Your task to perform on an android device: turn pop-ups on in chrome Image 0: 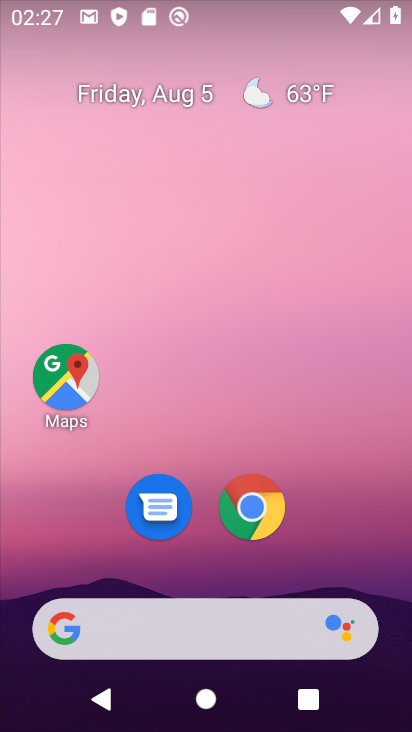
Step 0: click (264, 505)
Your task to perform on an android device: turn pop-ups on in chrome Image 1: 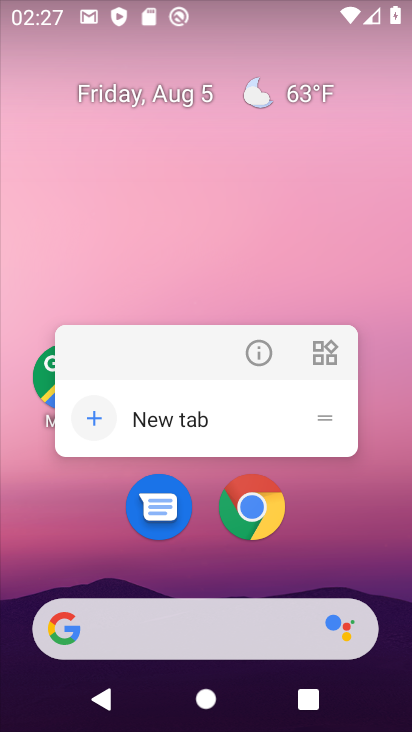
Step 1: click (264, 505)
Your task to perform on an android device: turn pop-ups on in chrome Image 2: 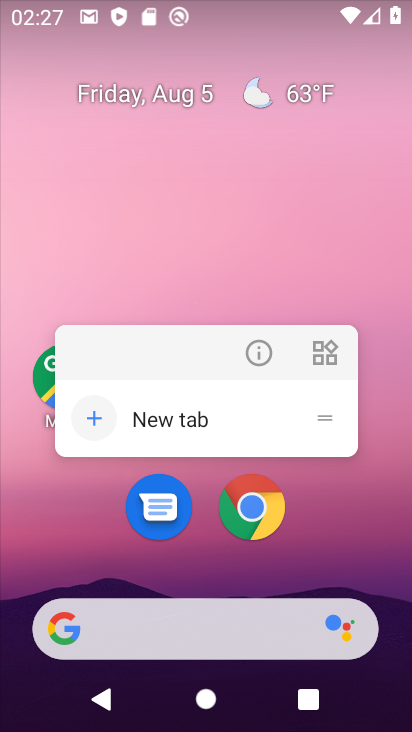
Step 2: click (267, 507)
Your task to perform on an android device: turn pop-ups on in chrome Image 3: 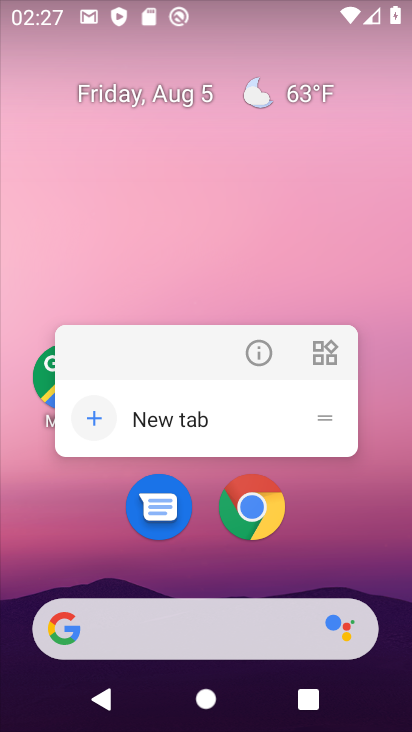
Step 3: click (253, 517)
Your task to perform on an android device: turn pop-ups on in chrome Image 4: 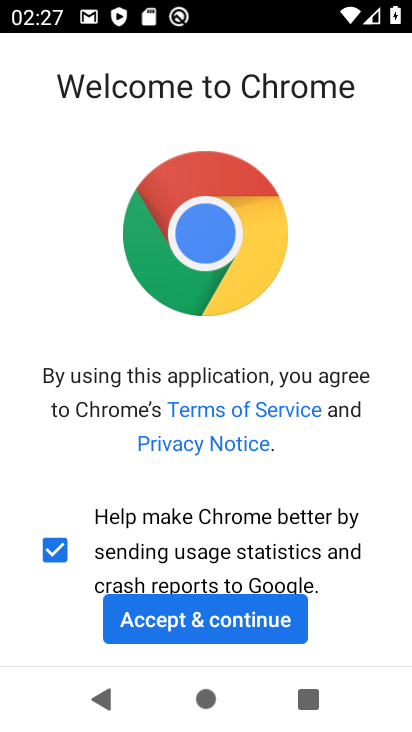
Step 4: click (193, 618)
Your task to perform on an android device: turn pop-ups on in chrome Image 5: 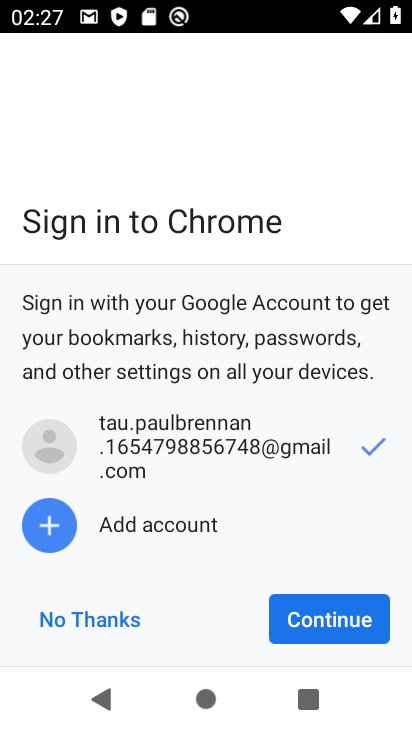
Step 5: click (355, 623)
Your task to perform on an android device: turn pop-ups on in chrome Image 6: 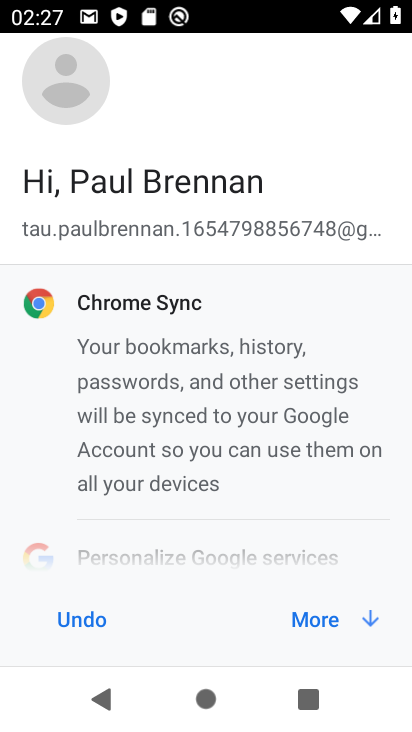
Step 6: click (322, 627)
Your task to perform on an android device: turn pop-ups on in chrome Image 7: 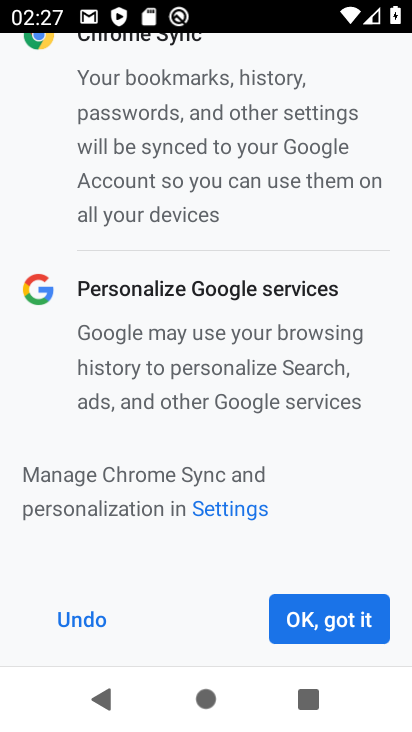
Step 7: click (323, 625)
Your task to perform on an android device: turn pop-ups on in chrome Image 8: 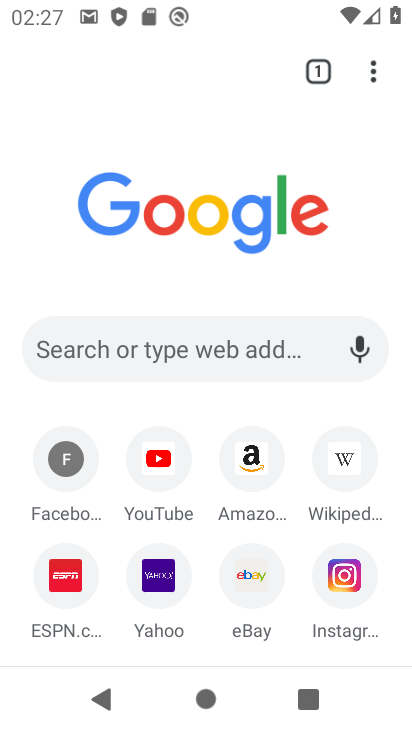
Step 8: click (373, 68)
Your task to perform on an android device: turn pop-ups on in chrome Image 9: 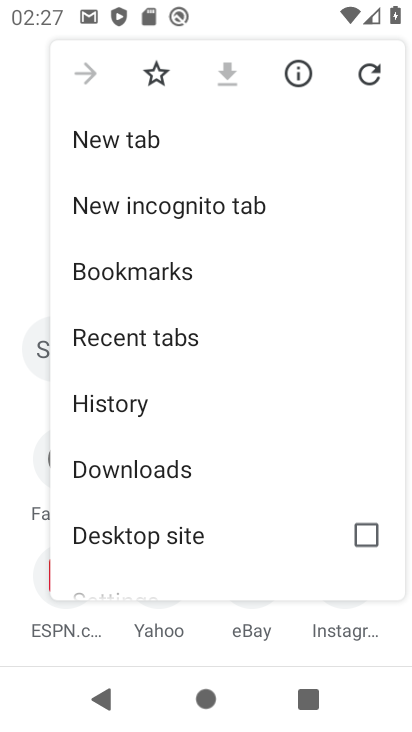
Step 9: drag from (175, 525) to (173, 272)
Your task to perform on an android device: turn pop-ups on in chrome Image 10: 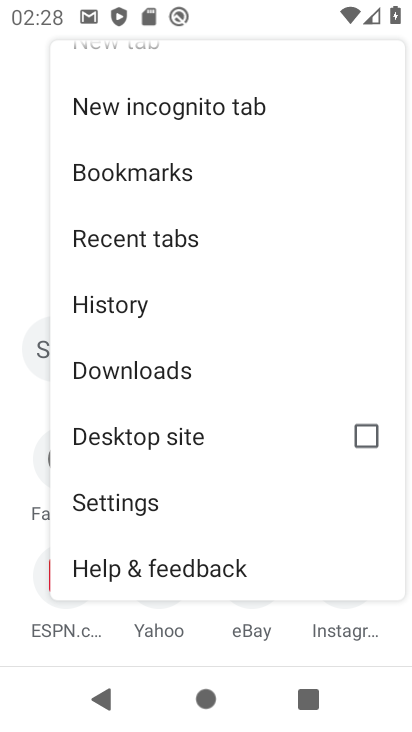
Step 10: click (139, 500)
Your task to perform on an android device: turn pop-ups on in chrome Image 11: 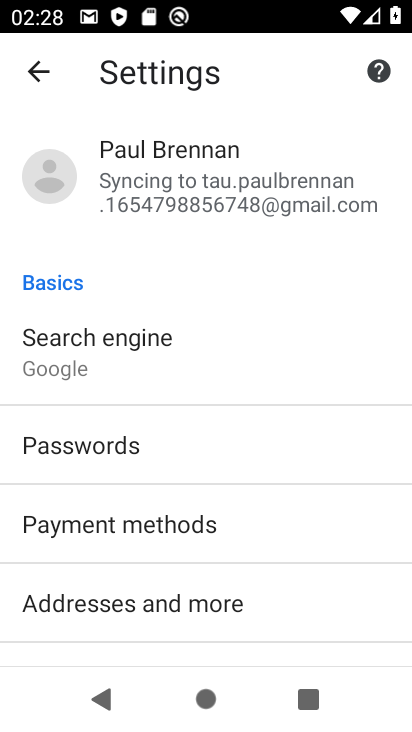
Step 11: drag from (139, 546) to (187, 321)
Your task to perform on an android device: turn pop-ups on in chrome Image 12: 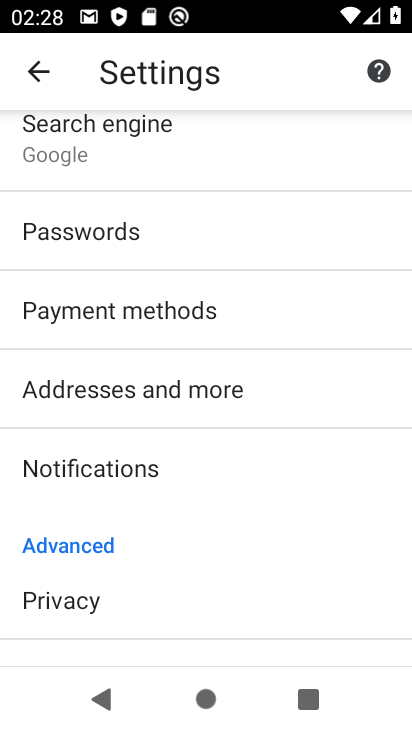
Step 12: drag from (139, 485) to (138, 352)
Your task to perform on an android device: turn pop-ups on in chrome Image 13: 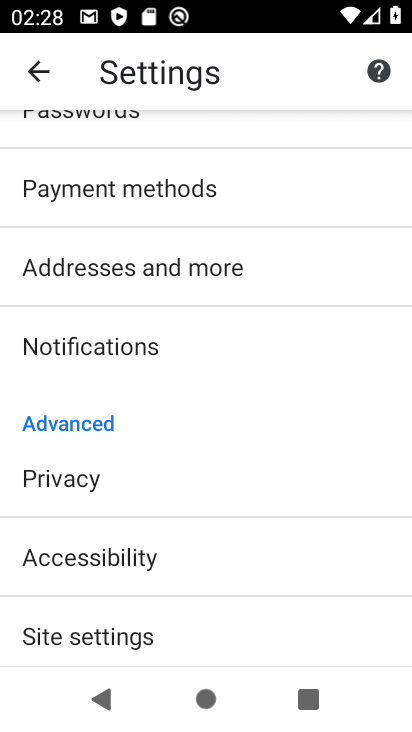
Step 13: click (101, 633)
Your task to perform on an android device: turn pop-ups on in chrome Image 14: 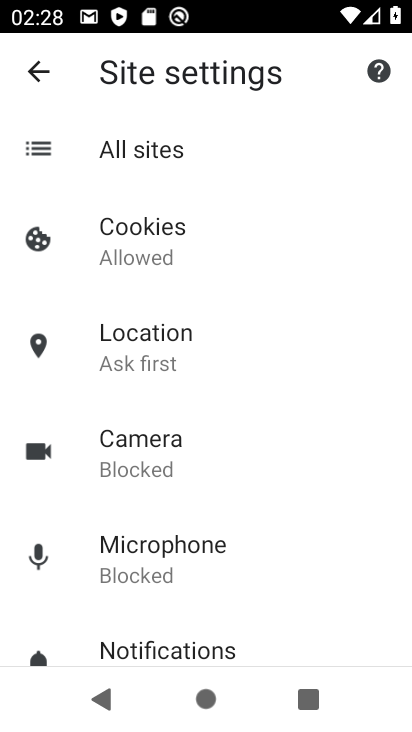
Step 14: drag from (143, 567) to (165, 321)
Your task to perform on an android device: turn pop-ups on in chrome Image 15: 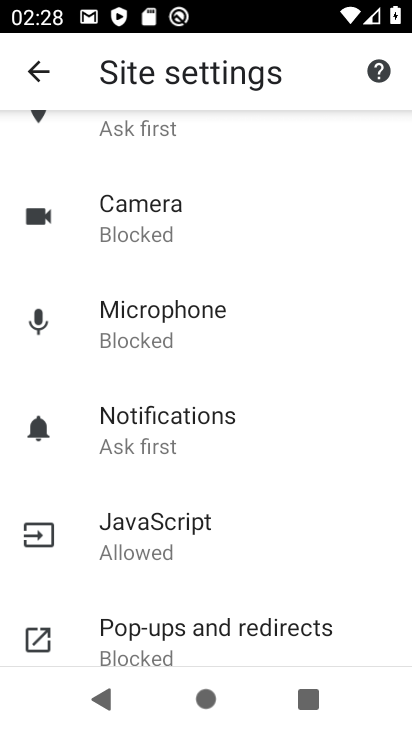
Step 15: click (176, 620)
Your task to perform on an android device: turn pop-ups on in chrome Image 16: 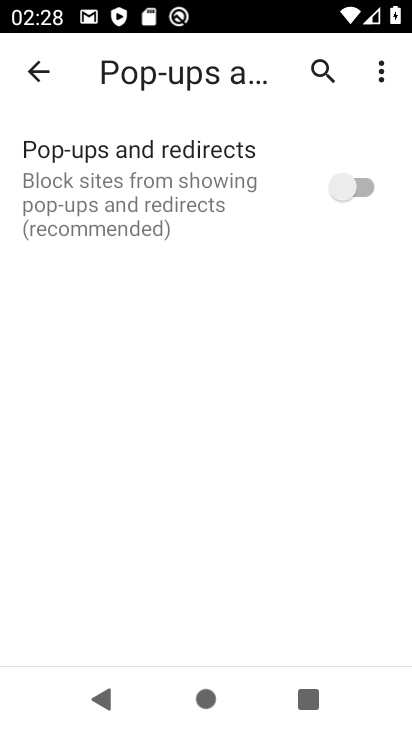
Step 16: click (379, 186)
Your task to perform on an android device: turn pop-ups on in chrome Image 17: 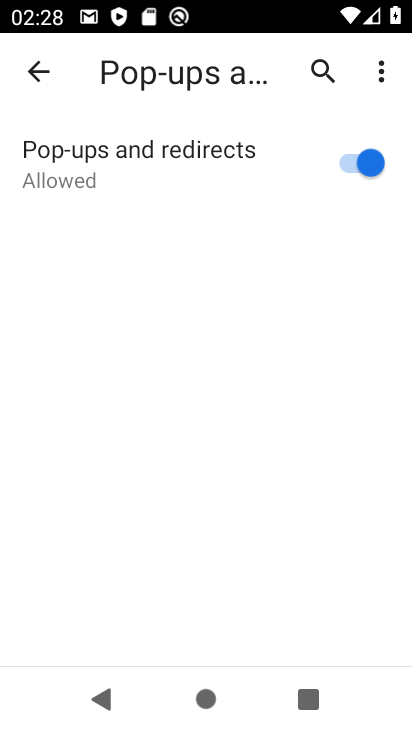
Step 17: task complete